Your task to perform on an android device: Open calendar and show me the second week of next month Image 0: 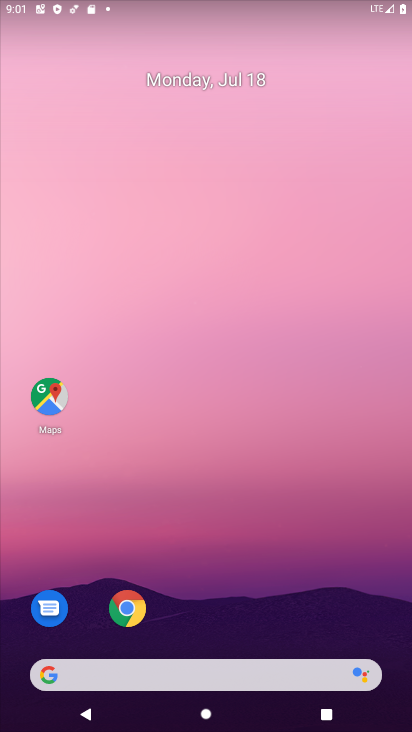
Step 0: drag from (20, 692) to (222, 184)
Your task to perform on an android device: Open calendar and show me the second week of next month Image 1: 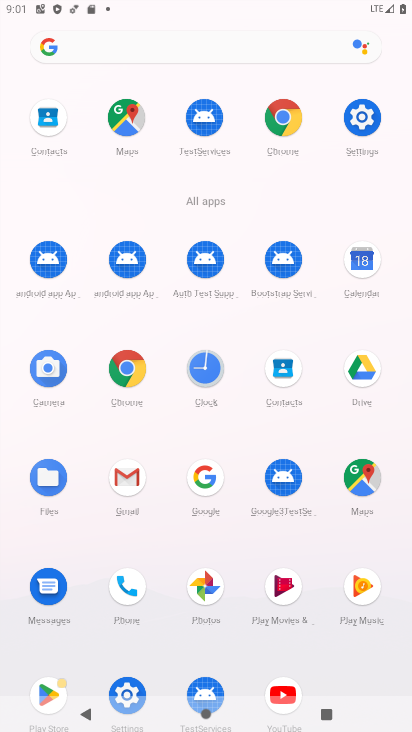
Step 1: click (354, 266)
Your task to perform on an android device: Open calendar and show me the second week of next month Image 2: 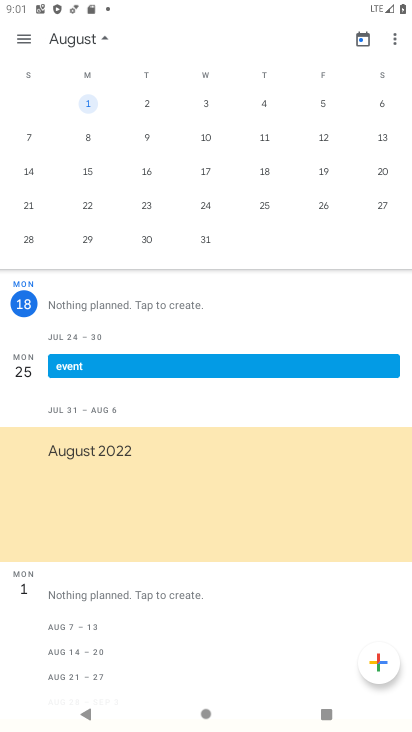
Step 2: click (84, 133)
Your task to perform on an android device: Open calendar and show me the second week of next month Image 3: 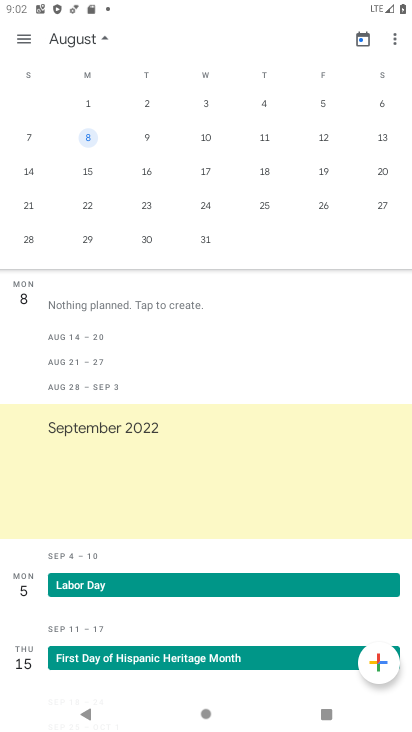
Step 3: task complete